Your task to perform on an android device: see sites visited before in the chrome app Image 0: 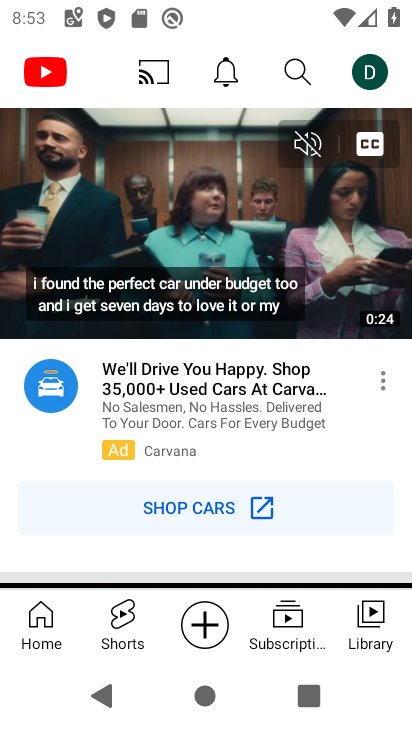
Step 0: press home button
Your task to perform on an android device: see sites visited before in the chrome app Image 1: 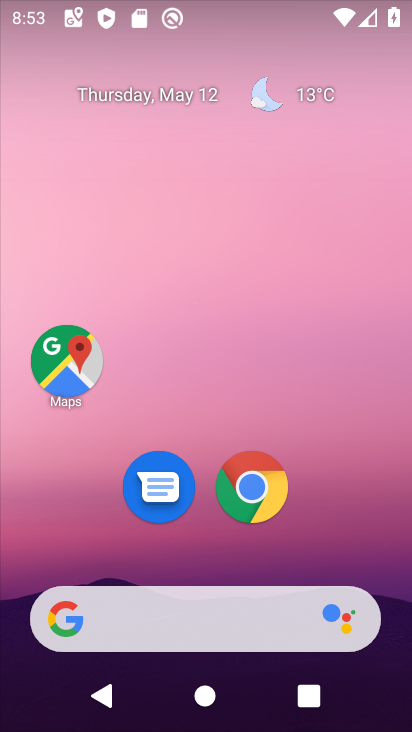
Step 1: click (251, 490)
Your task to perform on an android device: see sites visited before in the chrome app Image 2: 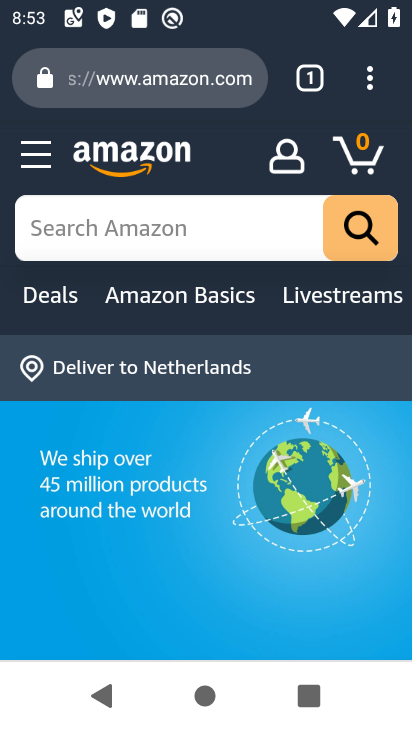
Step 2: click (371, 96)
Your task to perform on an android device: see sites visited before in the chrome app Image 3: 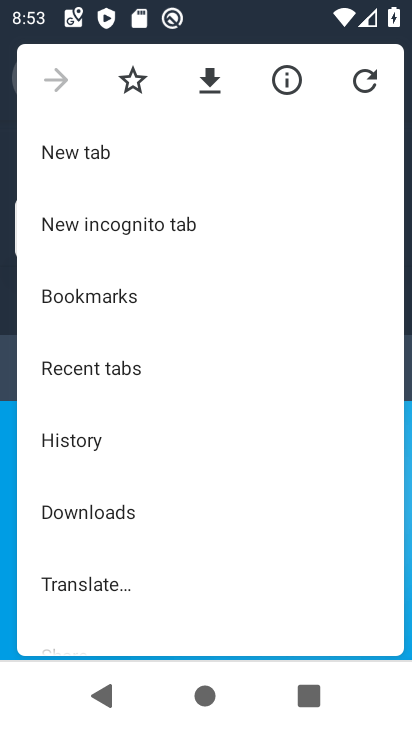
Step 3: click (97, 435)
Your task to perform on an android device: see sites visited before in the chrome app Image 4: 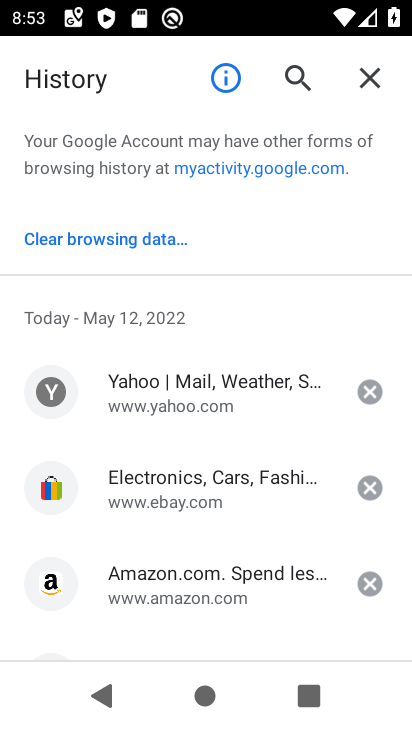
Step 4: task complete